Your task to perform on an android device: turn on data saver in the chrome app Image 0: 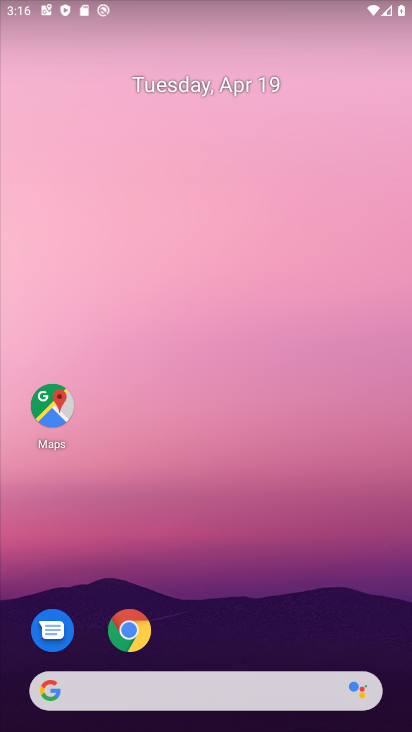
Step 0: drag from (236, 524) to (297, 150)
Your task to perform on an android device: turn on data saver in the chrome app Image 1: 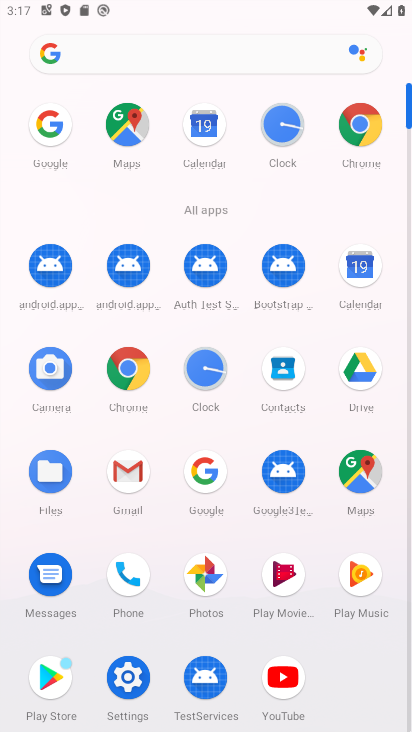
Step 1: click (353, 135)
Your task to perform on an android device: turn on data saver in the chrome app Image 2: 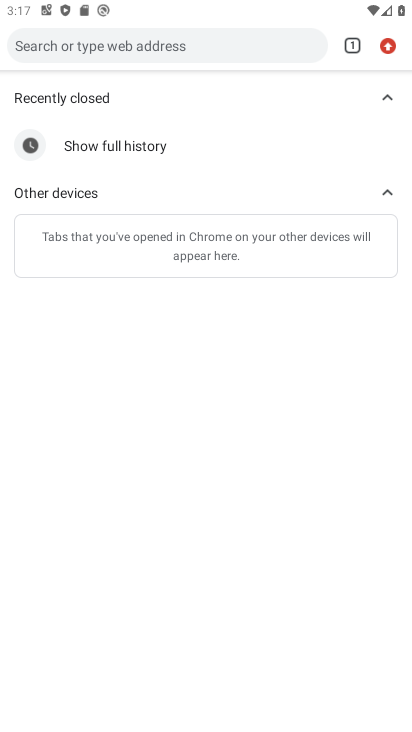
Step 2: click (395, 47)
Your task to perform on an android device: turn on data saver in the chrome app Image 3: 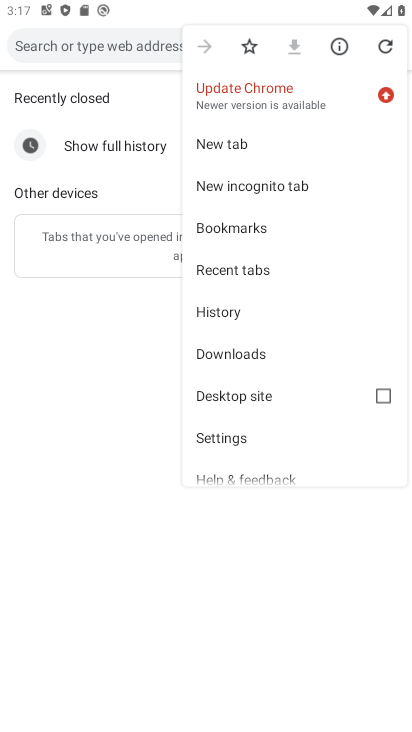
Step 3: click (239, 441)
Your task to perform on an android device: turn on data saver in the chrome app Image 4: 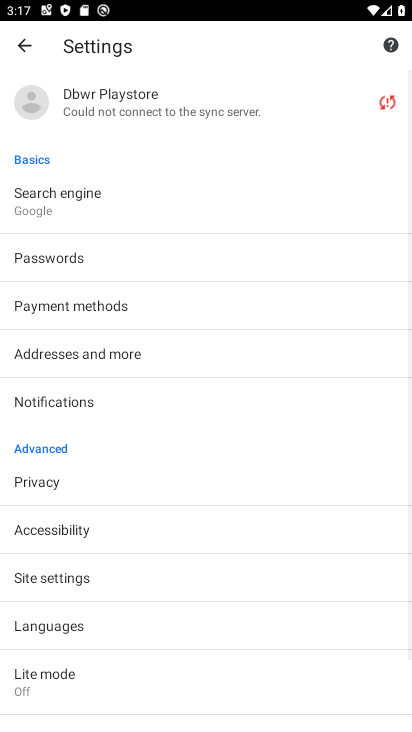
Step 4: drag from (172, 528) to (181, 211)
Your task to perform on an android device: turn on data saver in the chrome app Image 5: 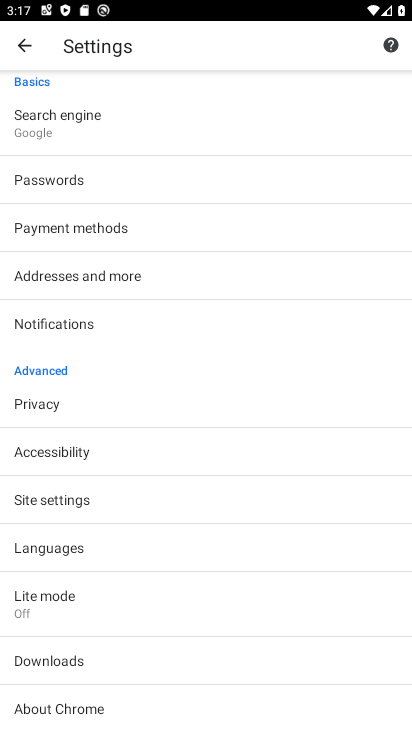
Step 5: drag from (86, 597) to (141, 328)
Your task to perform on an android device: turn on data saver in the chrome app Image 6: 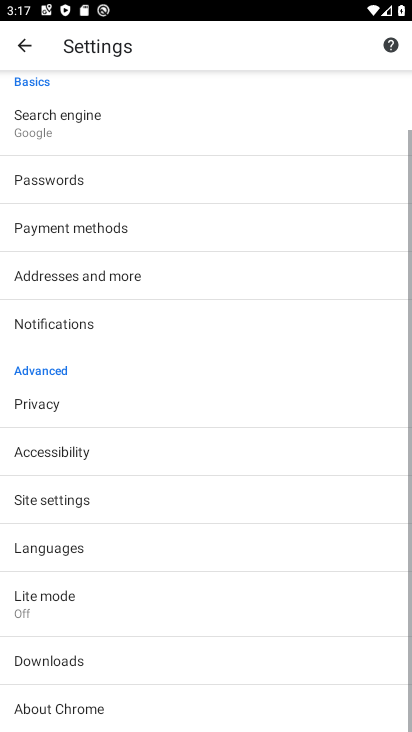
Step 6: click (56, 607)
Your task to perform on an android device: turn on data saver in the chrome app Image 7: 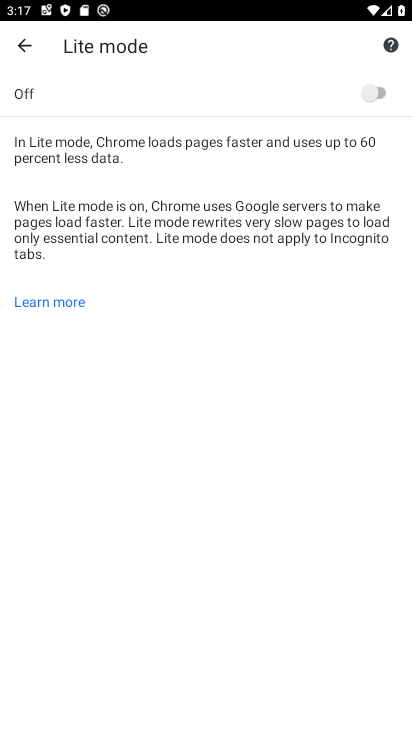
Step 7: click (388, 90)
Your task to perform on an android device: turn on data saver in the chrome app Image 8: 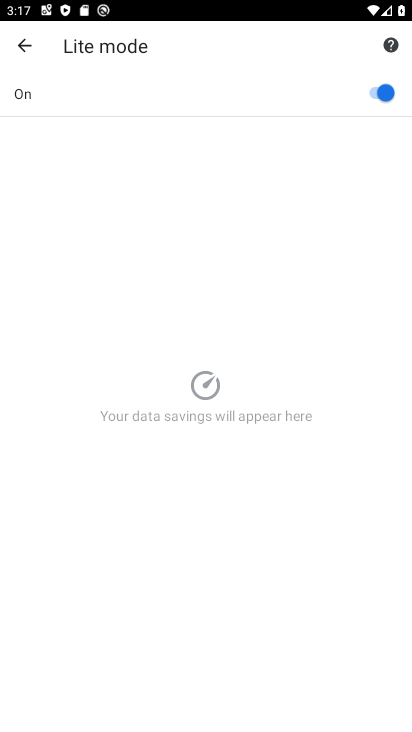
Step 8: task complete